Your task to perform on an android device: open app "DoorDash - Food Delivery" (install if not already installed) Image 0: 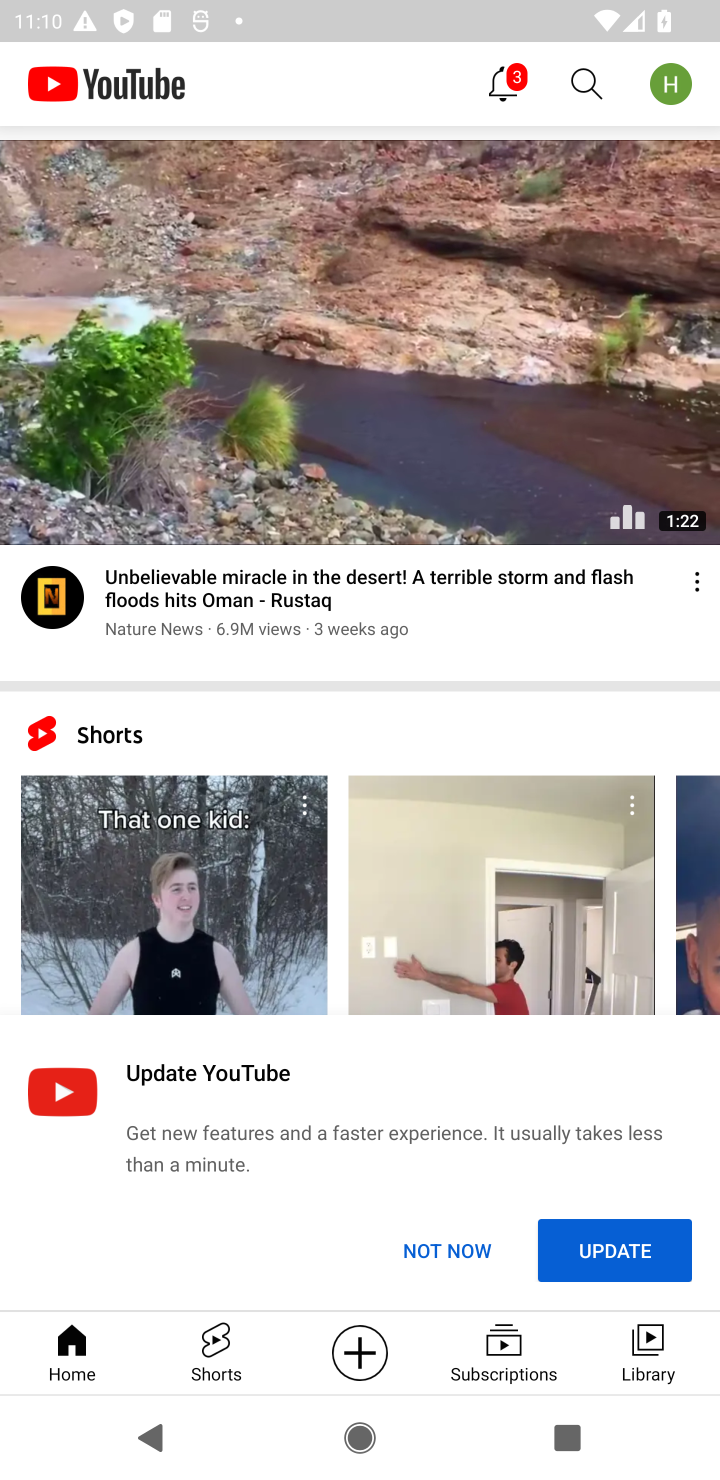
Step 0: press home button
Your task to perform on an android device: open app "DoorDash - Food Delivery" (install if not already installed) Image 1: 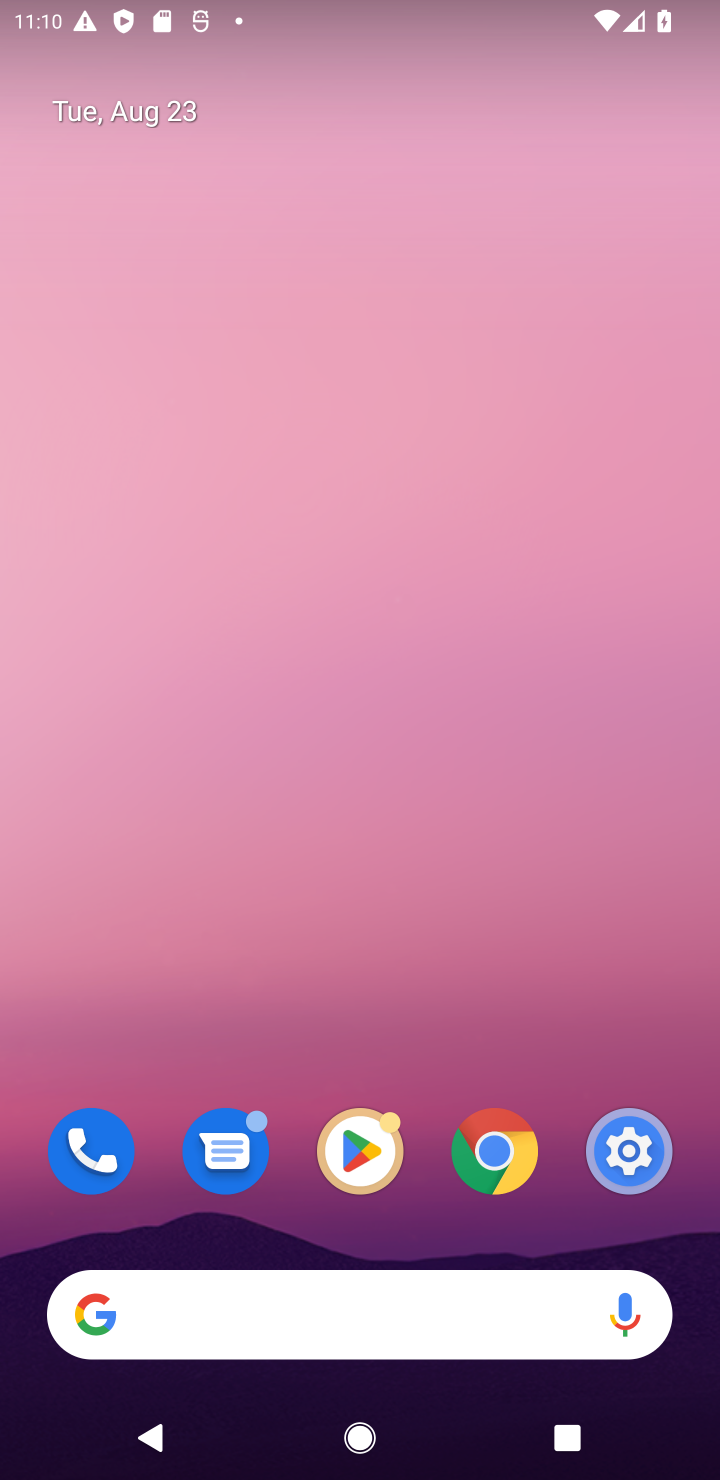
Step 1: press back button
Your task to perform on an android device: open app "DoorDash - Food Delivery" (install if not already installed) Image 2: 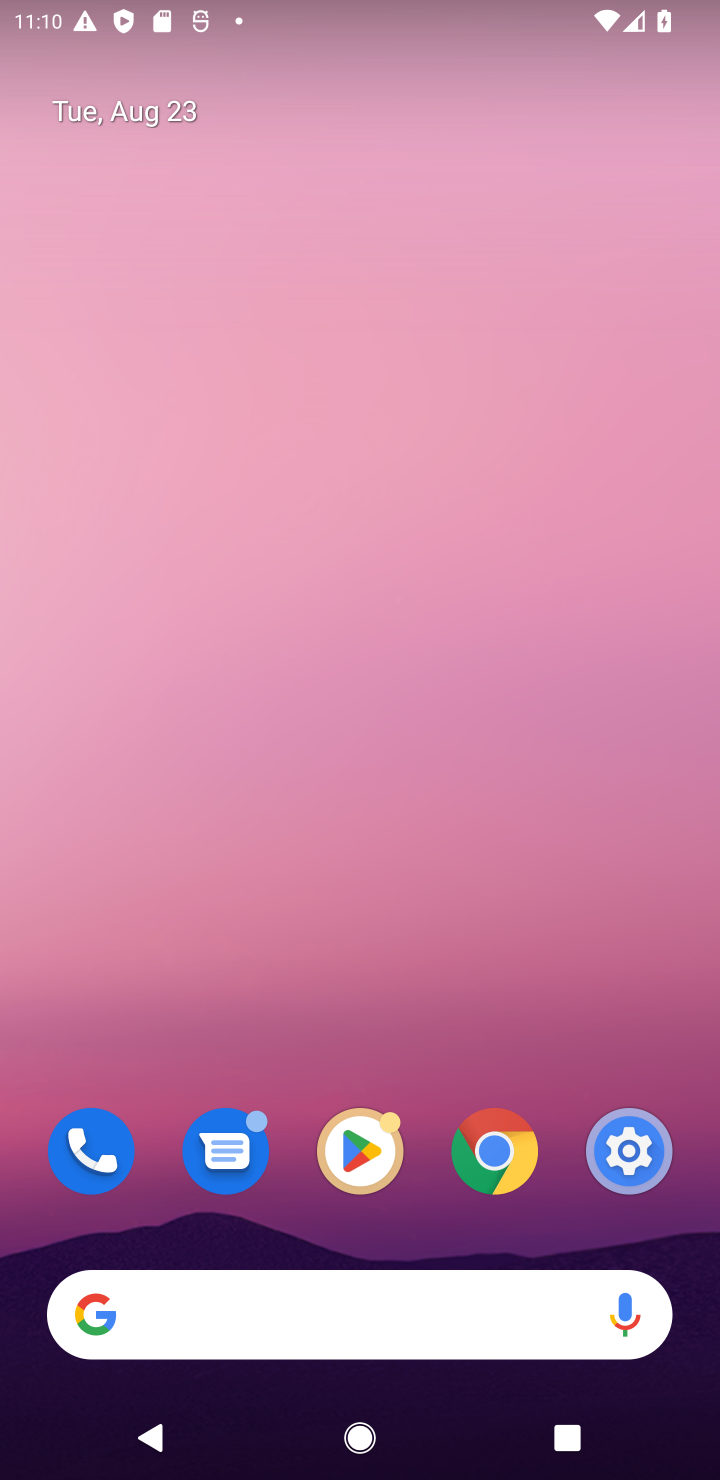
Step 2: click (344, 1151)
Your task to perform on an android device: open app "DoorDash - Food Delivery" (install if not already installed) Image 3: 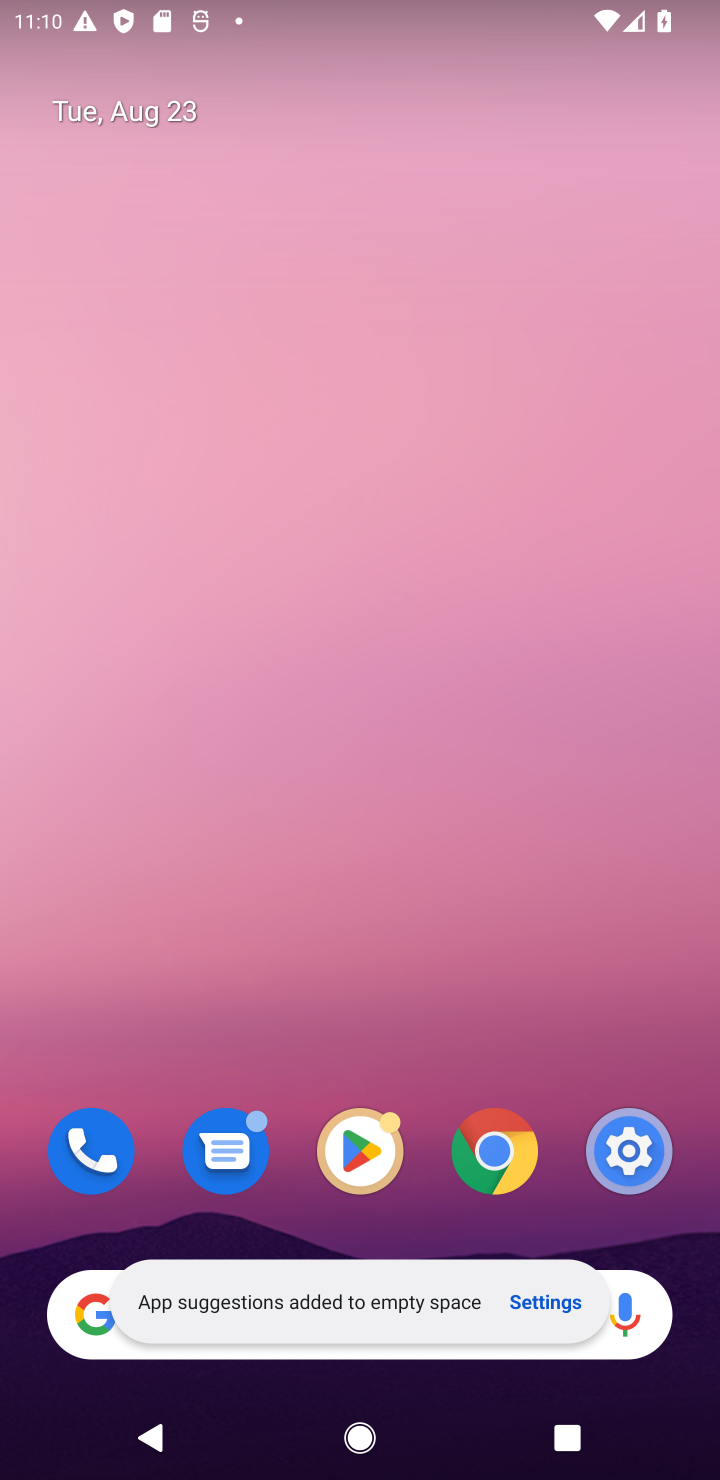
Step 3: click (344, 1151)
Your task to perform on an android device: open app "DoorDash - Food Delivery" (install if not already installed) Image 4: 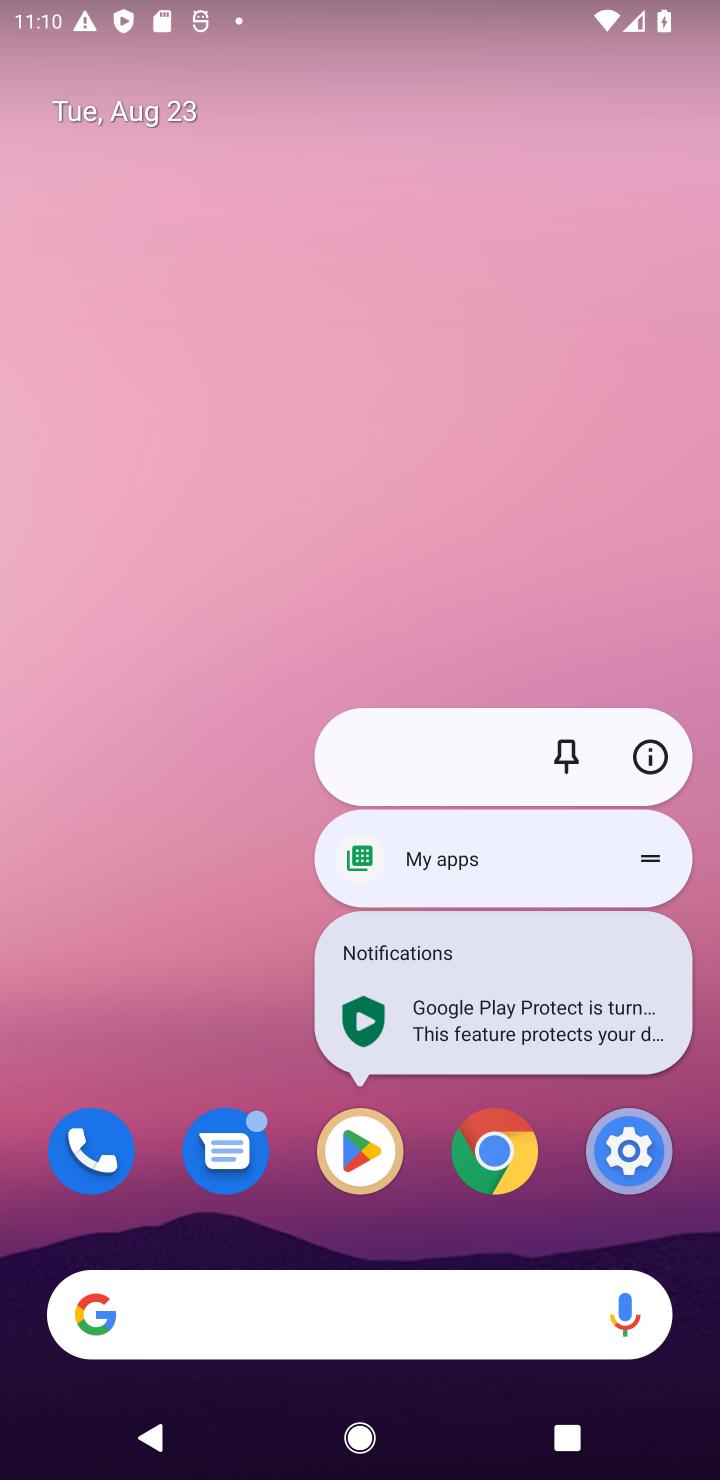
Step 4: click (377, 1166)
Your task to perform on an android device: open app "DoorDash - Food Delivery" (install if not already installed) Image 5: 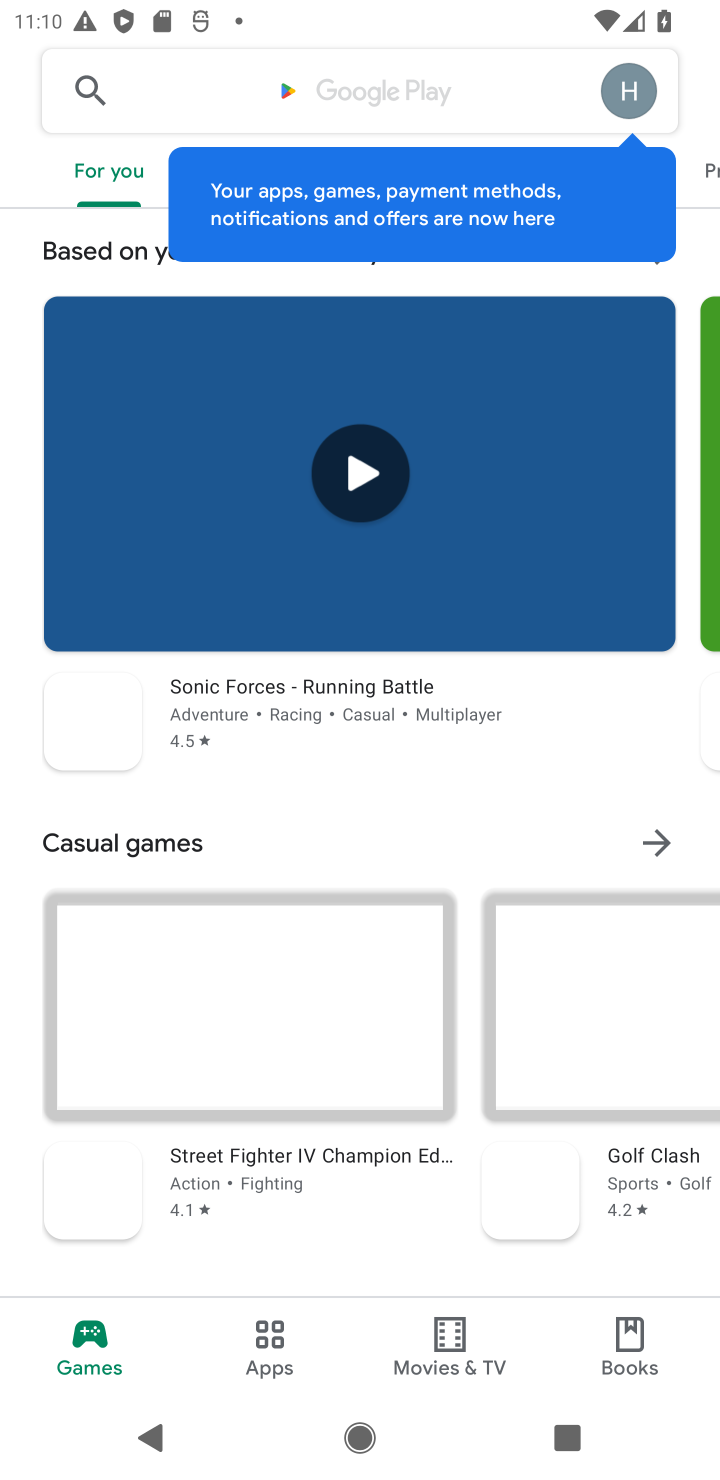
Step 5: click (416, 88)
Your task to perform on an android device: open app "DoorDash - Food Delivery" (install if not already installed) Image 6: 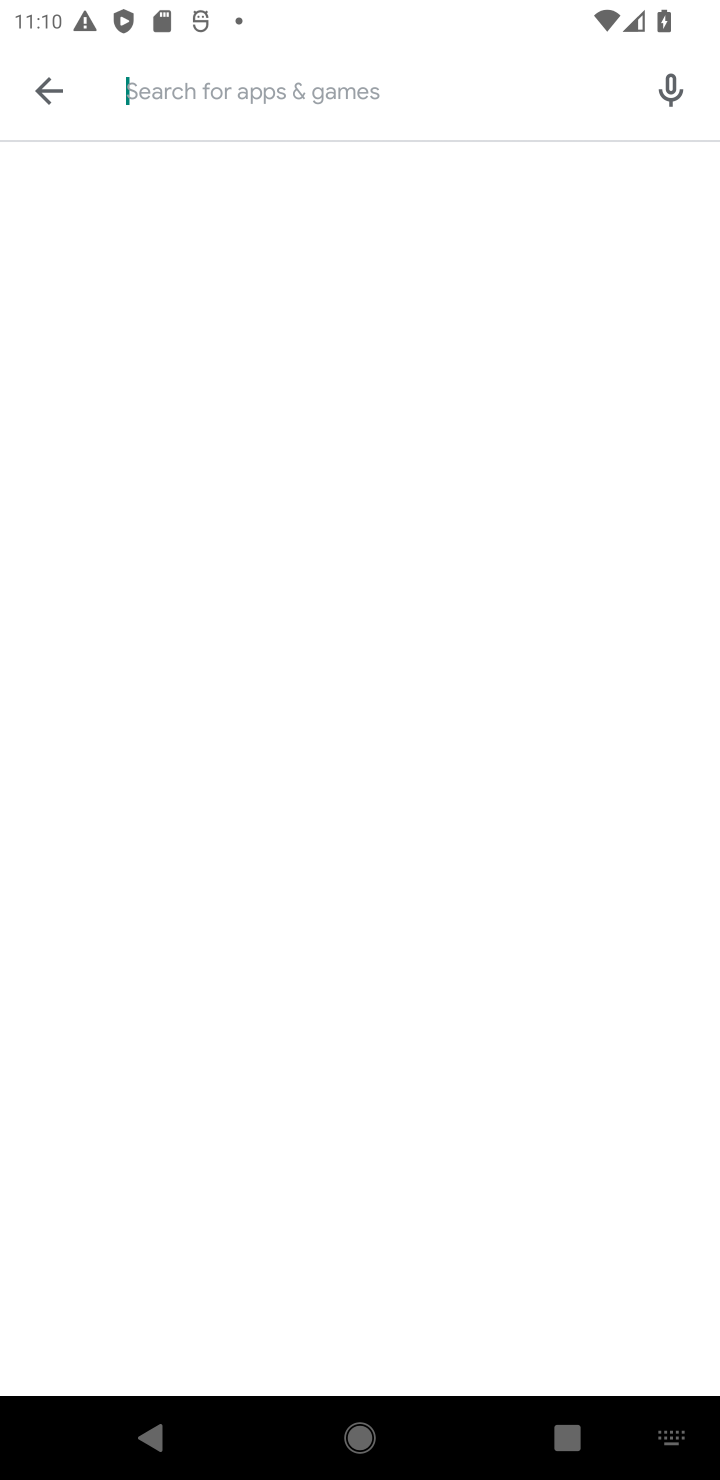
Step 6: type "Food Delivery"
Your task to perform on an android device: open app "DoorDash - Food Delivery" (install if not already installed) Image 7: 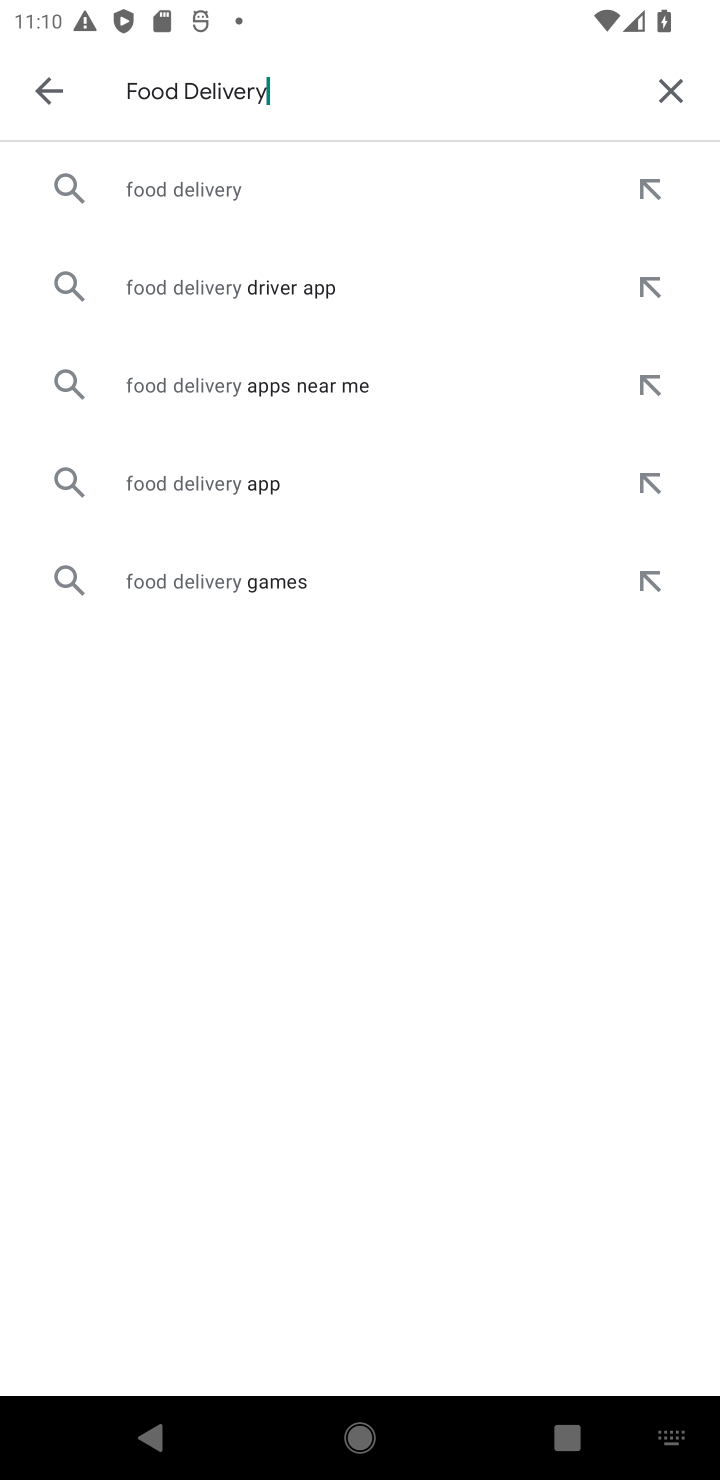
Step 7: click (231, 172)
Your task to perform on an android device: open app "DoorDash - Food Delivery" (install if not already installed) Image 8: 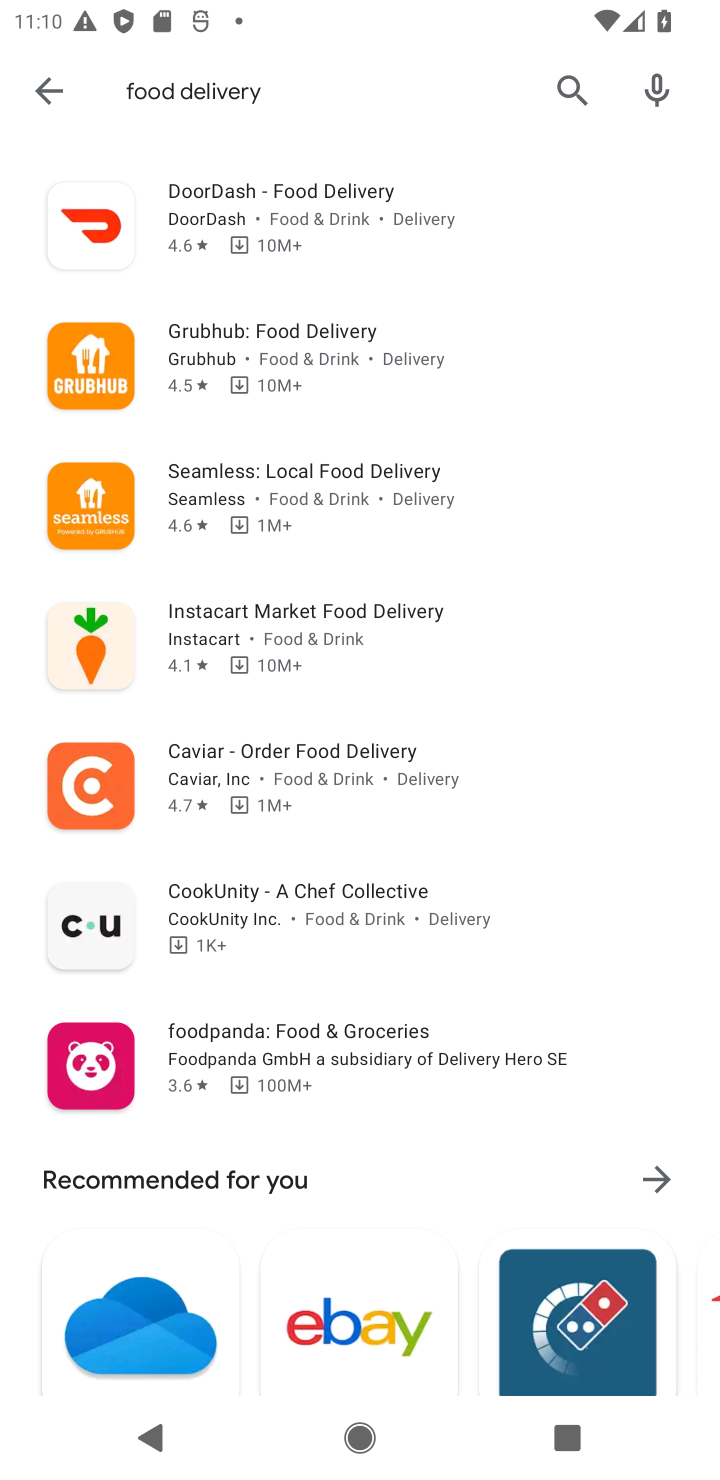
Step 8: click (337, 227)
Your task to perform on an android device: open app "DoorDash - Food Delivery" (install if not already installed) Image 9: 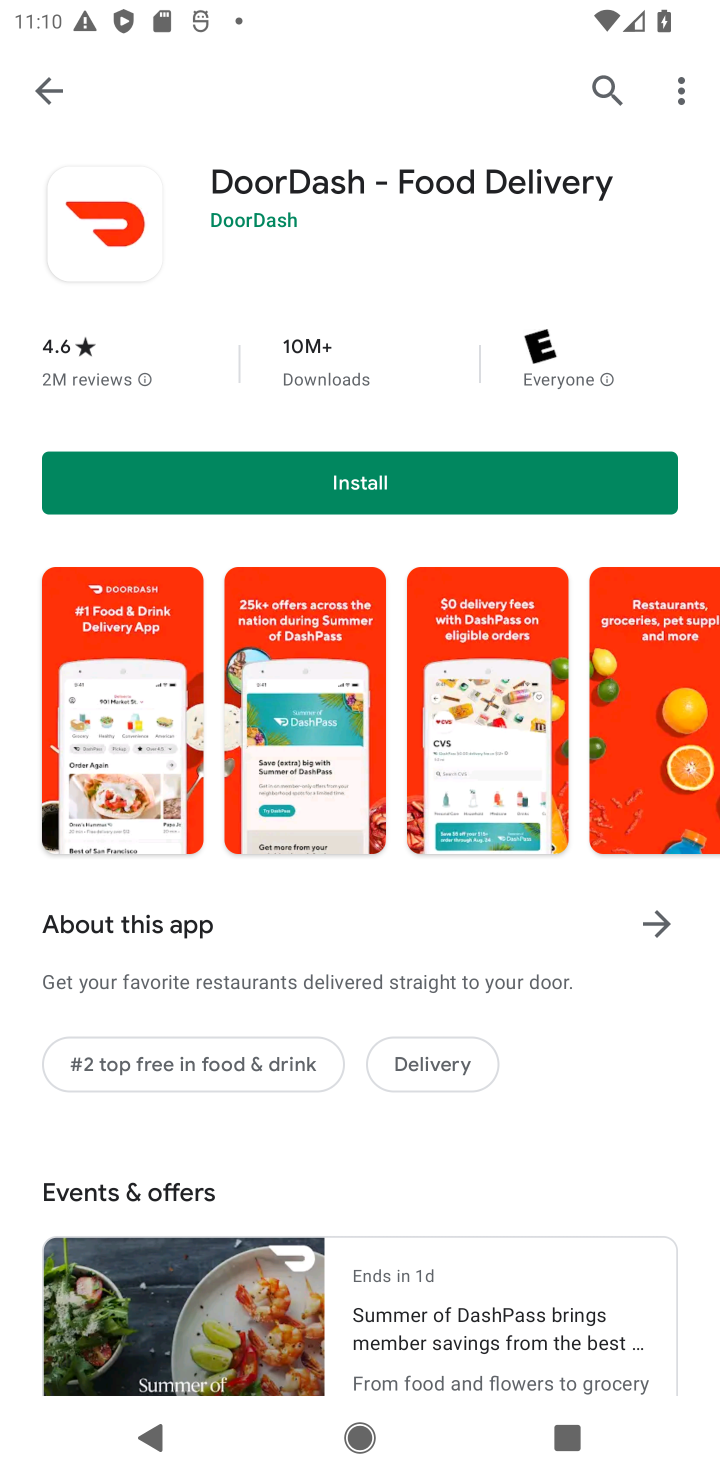
Step 9: click (471, 505)
Your task to perform on an android device: open app "DoorDash - Food Delivery" (install if not already installed) Image 10: 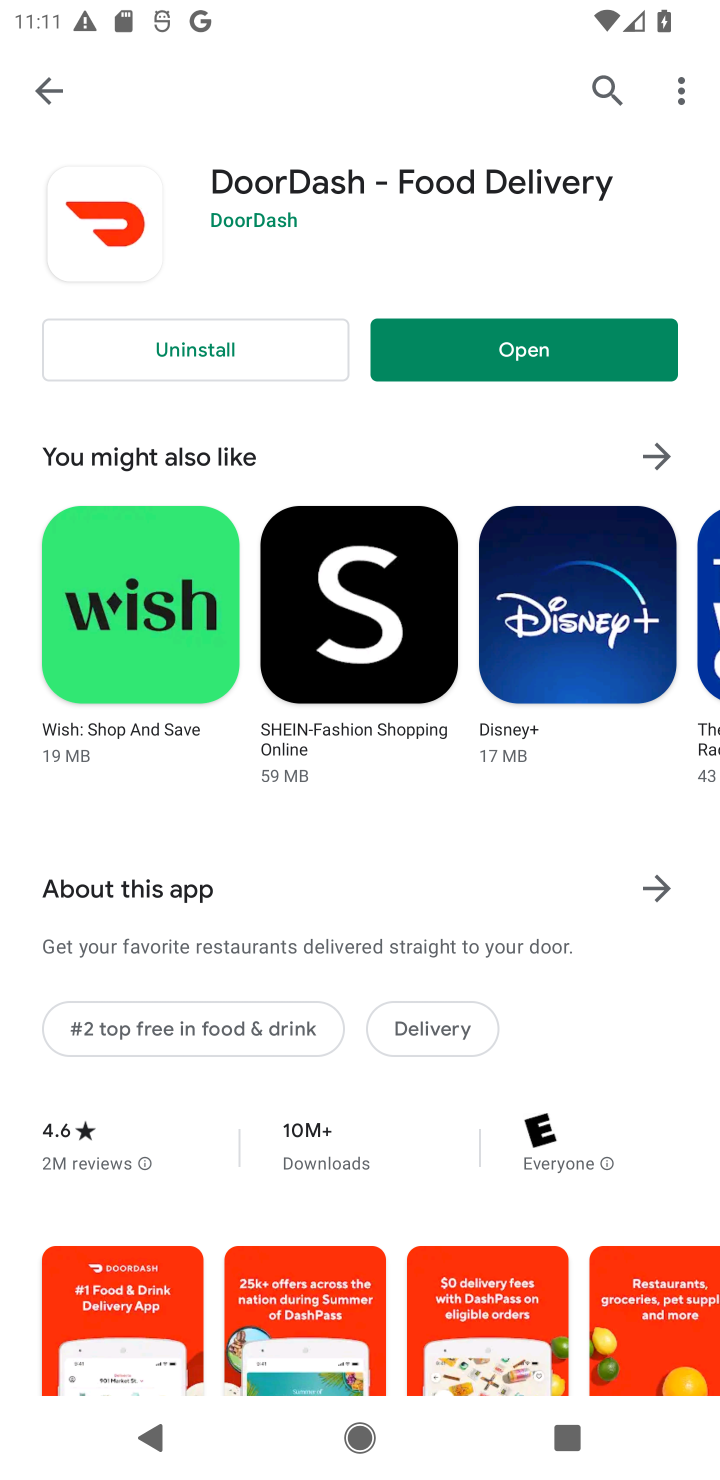
Step 10: click (539, 343)
Your task to perform on an android device: open app "DoorDash - Food Delivery" (install if not already installed) Image 11: 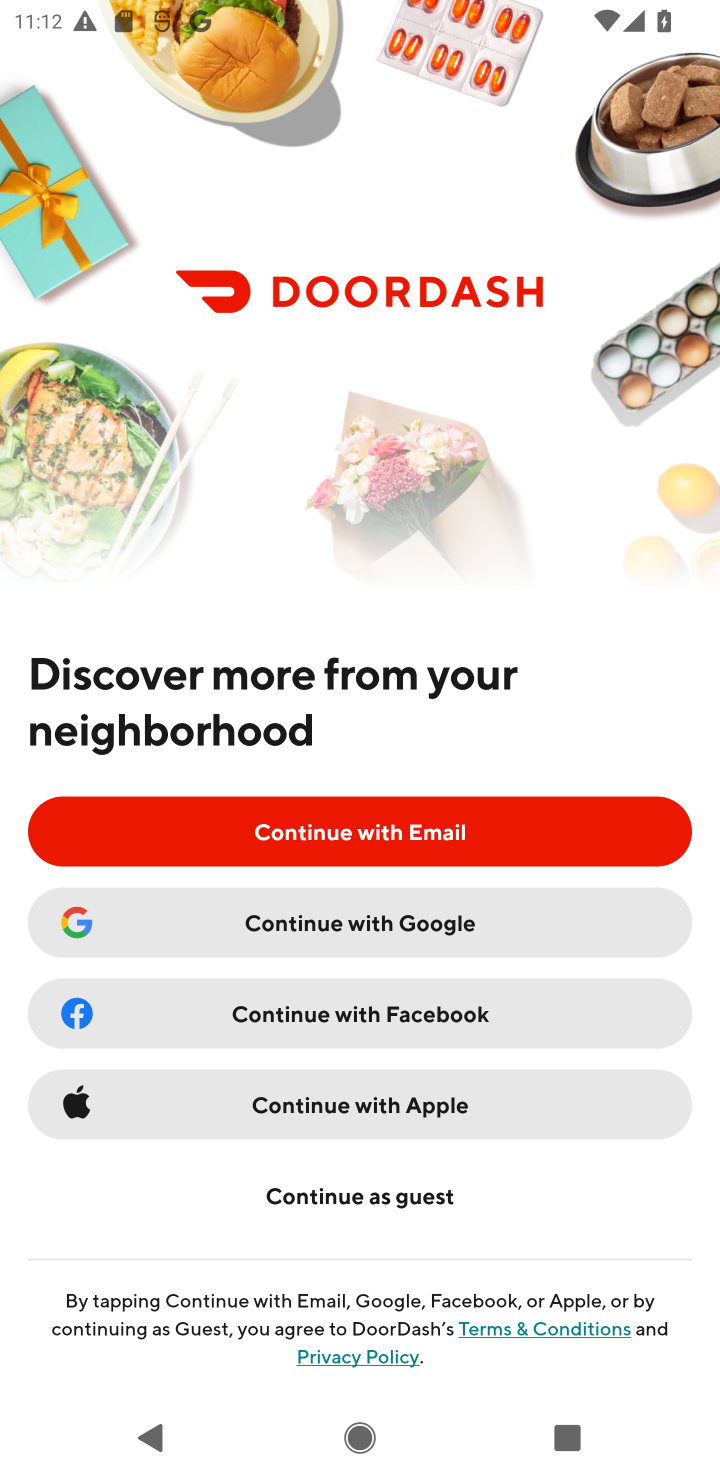
Step 11: task complete